Your task to perform on an android device: Open location settings Image 0: 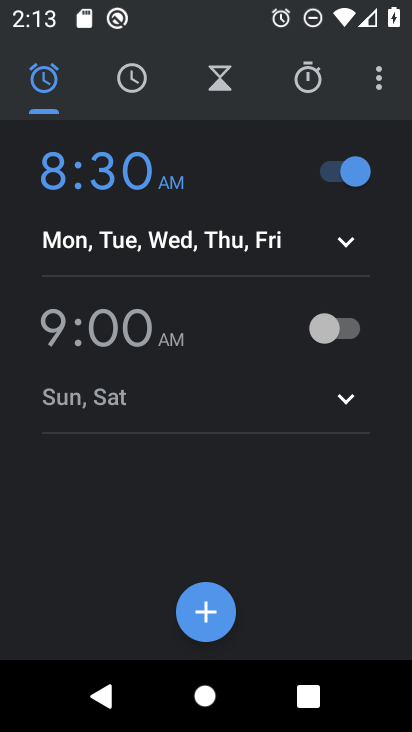
Step 0: press back button
Your task to perform on an android device: Open location settings Image 1: 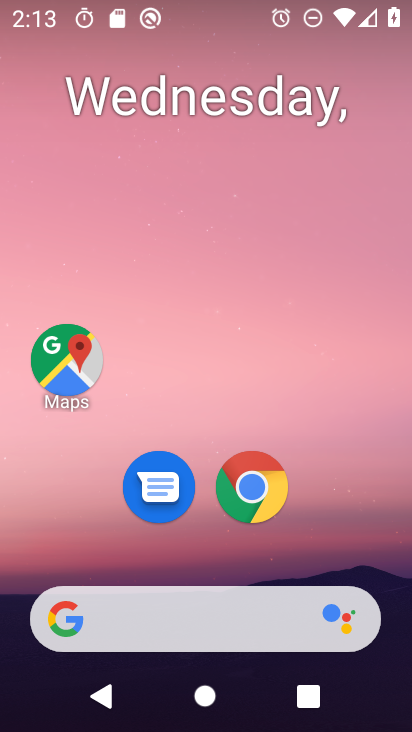
Step 1: drag from (78, 561) to (226, 36)
Your task to perform on an android device: Open location settings Image 2: 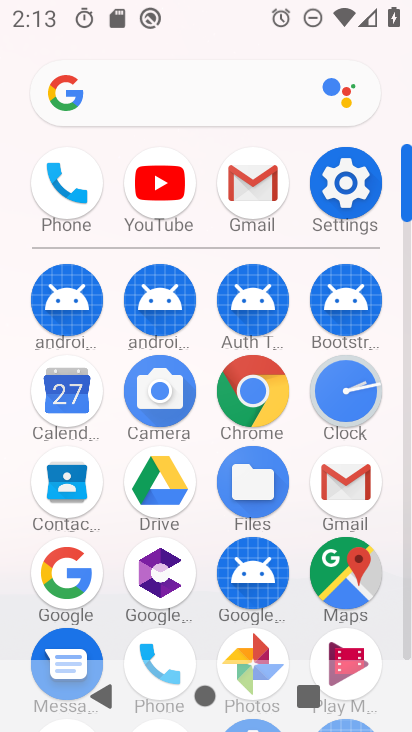
Step 2: click (348, 178)
Your task to perform on an android device: Open location settings Image 3: 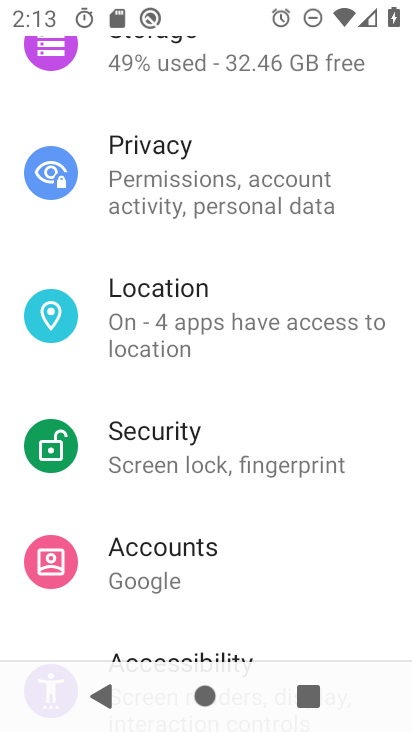
Step 3: click (181, 342)
Your task to perform on an android device: Open location settings Image 4: 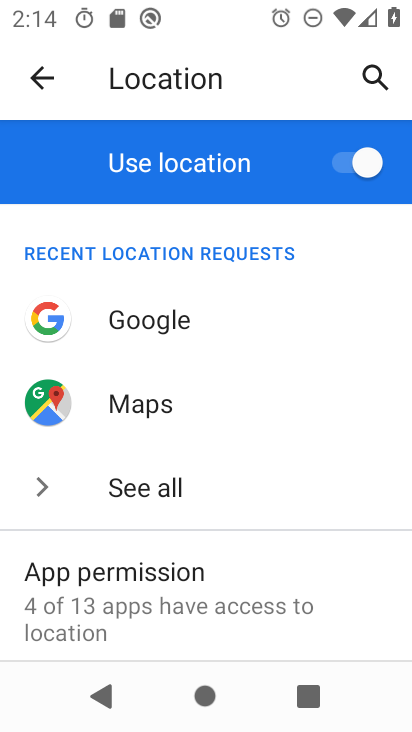
Step 4: task complete